Your task to perform on an android device: Open Google Chrome Image 0: 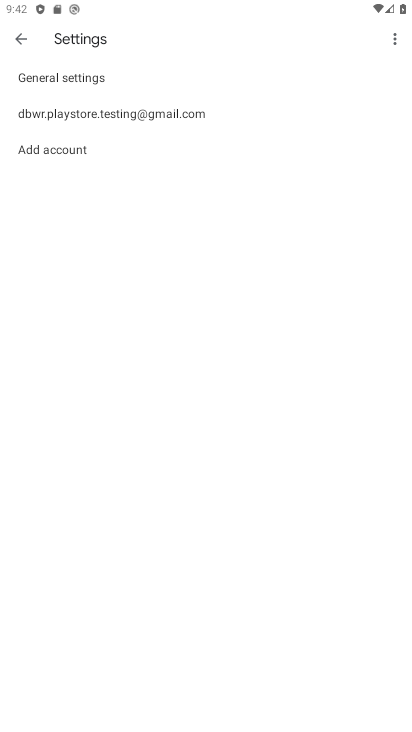
Step 0: press home button
Your task to perform on an android device: Open Google Chrome Image 1: 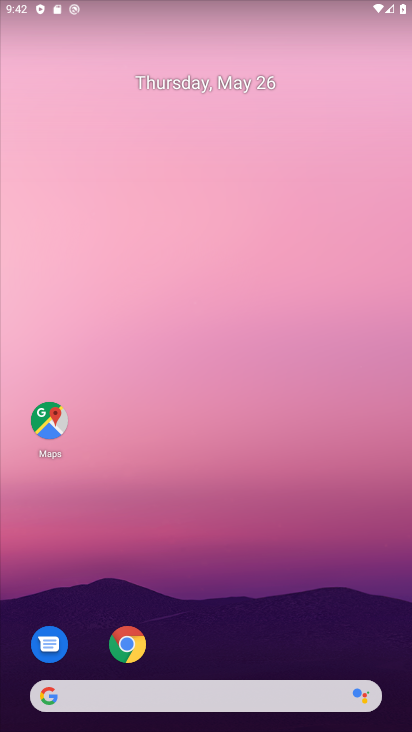
Step 1: drag from (304, 625) to (374, 134)
Your task to perform on an android device: Open Google Chrome Image 2: 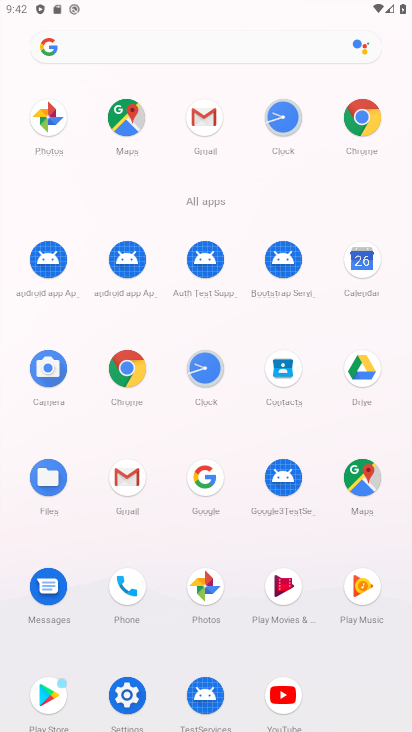
Step 2: click (129, 375)
Your task to perform on an android device: Open Google Chrome Image 3: 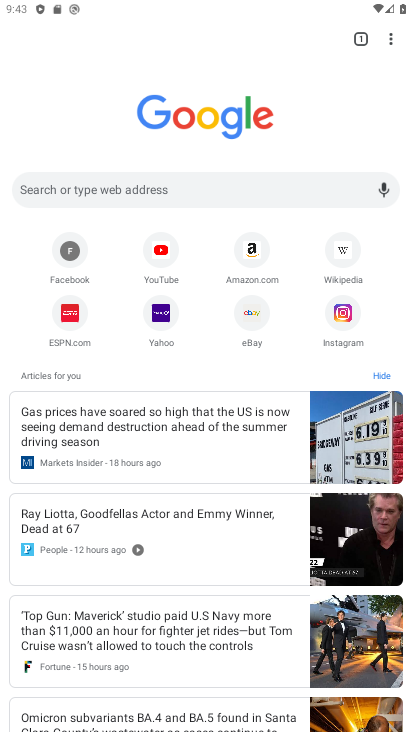
Step 3: task complete